Your task to perform on an android device: Do I have any events this weekend? Image 0: 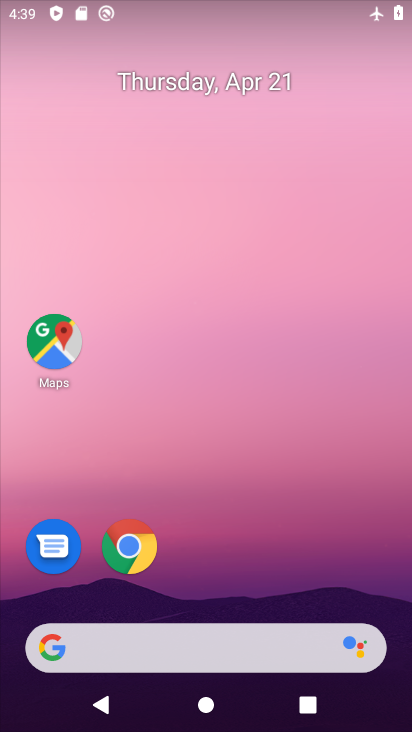
Step 0: drag from (202, 575) to (260, 80)
Your task to perform on an android device: Do I have any events this weekend? Image 1: 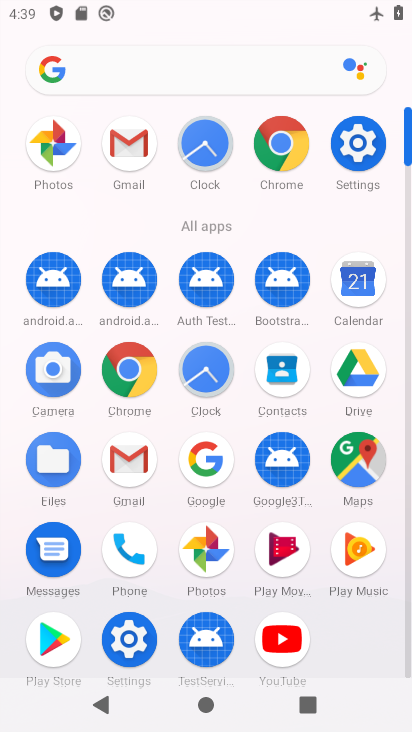
Step 1: click (355, 281)
Your task to perform on an android device: Do I have any events this weekend? Image 2: 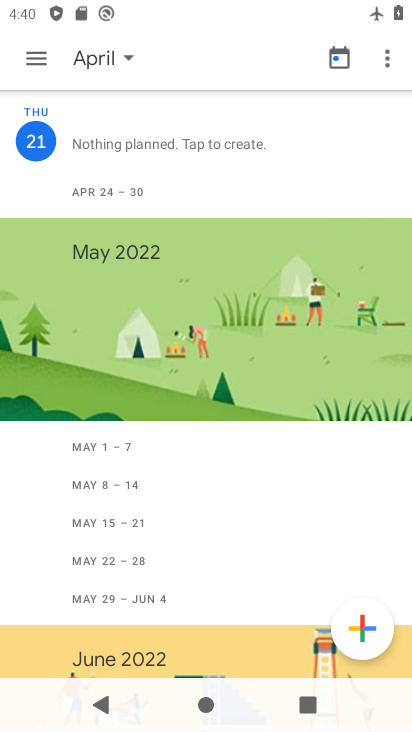
Step 2: click (34, 56)
Your task to perform on an android device: Do I have any events this weekend? Image 3: 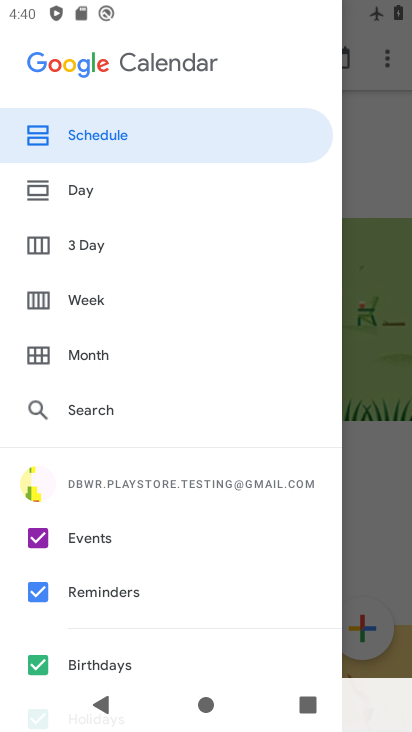
Step 3: drag from (134, 516) to (189, 193)
Your task to perform on an android device: Do I have any events this weekend? Image 4: 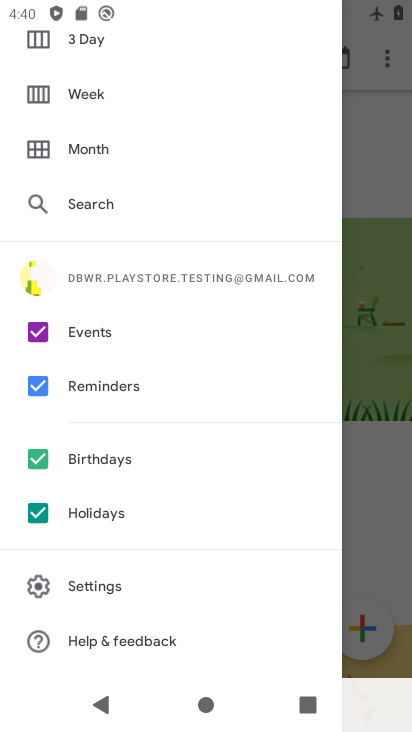
Step 4: click (44, 384)
Your task to perform on an android device: Do I have any events this weekend? Image 5: 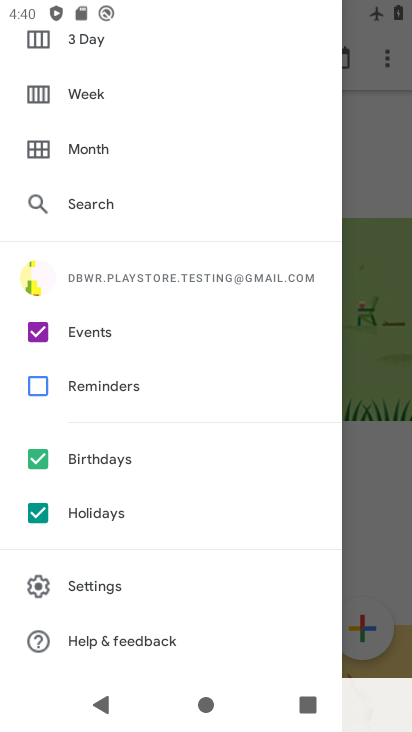
Step 5: click (38, 513)
Your task to perform on an android device: Do I have any events this weekend? Image 6: 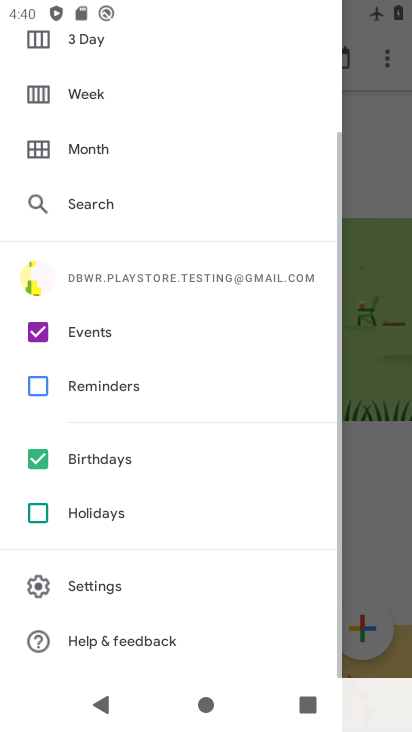
Step 6: click (39, 449)
Your task to perform on an android device: Do I have any events this weekend? Image 7: 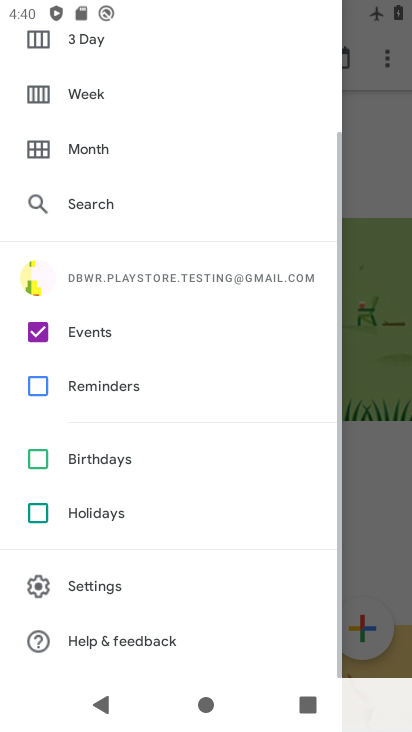
Step 7: drag from (263, 246) to (250, 610)
Your task to perform on an android device: Do I have any events this weekend? Image 8: 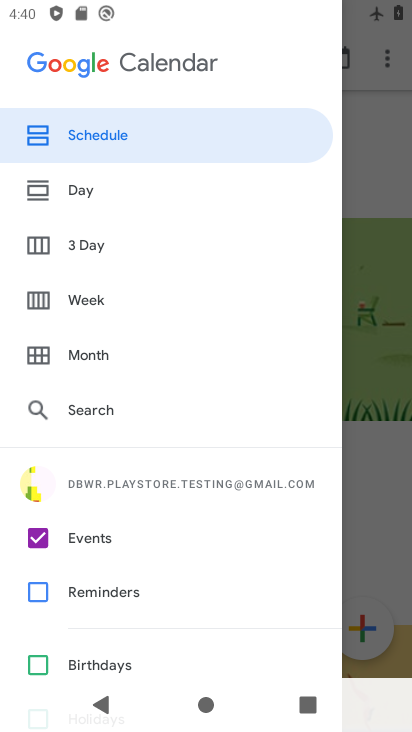
Step 8: drag from (376, 318) to (339, 307)
Your task to perform on an android device: Do I have any events this weekend? Image 9: 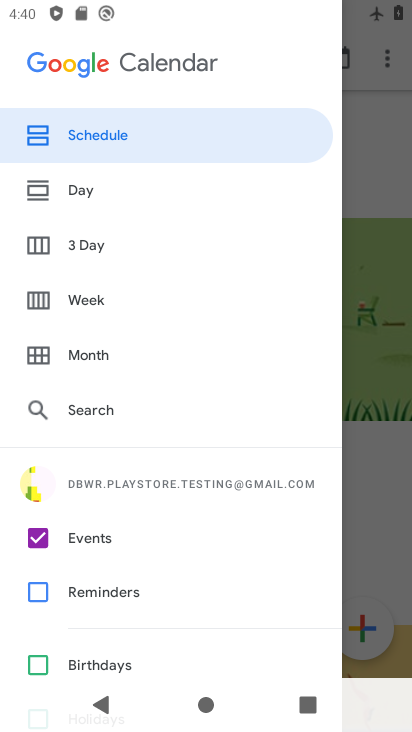
Step 9: click (376, 162)
Your task to perform on an android device: Do I have any events this weekend? Image 10: 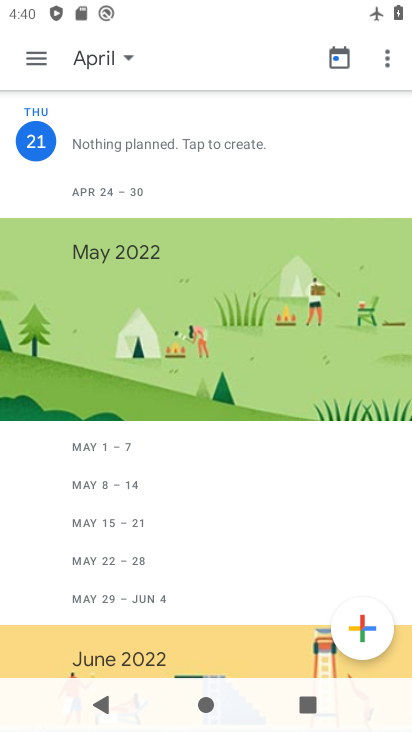
Step 10: click (114, 61)
Your task to perform on an android device: Do I have any events this weekend? Image 11: 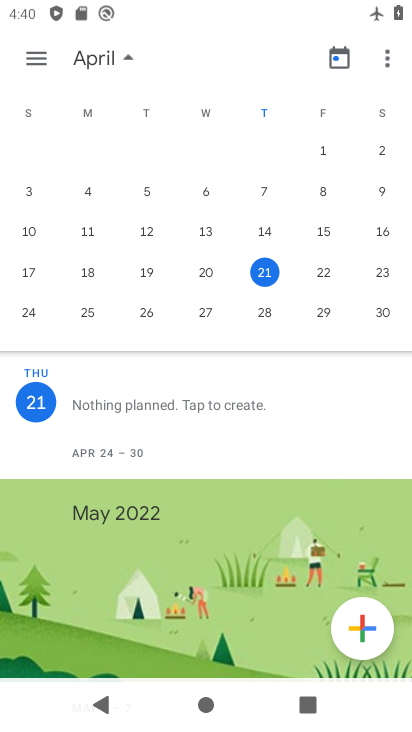
Step 11: click (330, 266)
Your task to perform on an android device: Do I have any events this weekend? Image 12: 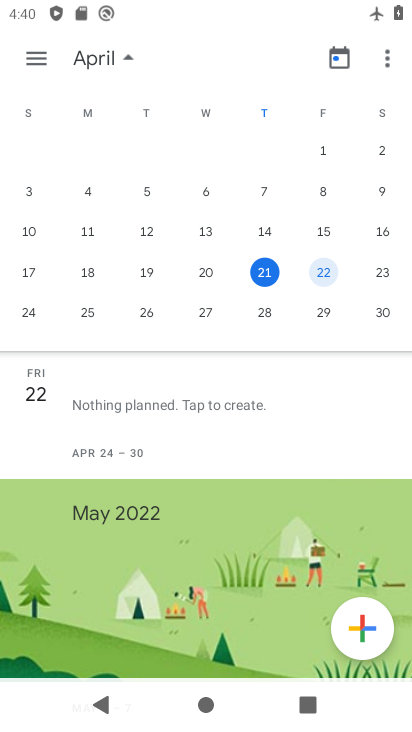
Step 12: click (330, 266)
Your task to perform on an android device: Do I have any events this weekend? Image 13: 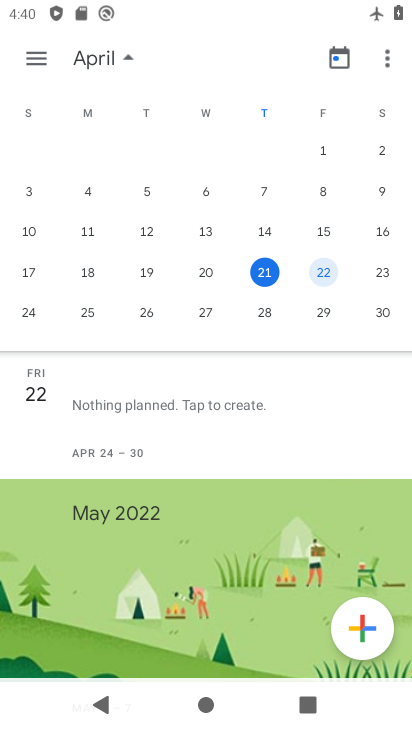
Step 13: drag from (280, 420) to (263, 32)
Your task to perform on an android device: Do I have any events this weekend? Image 14: 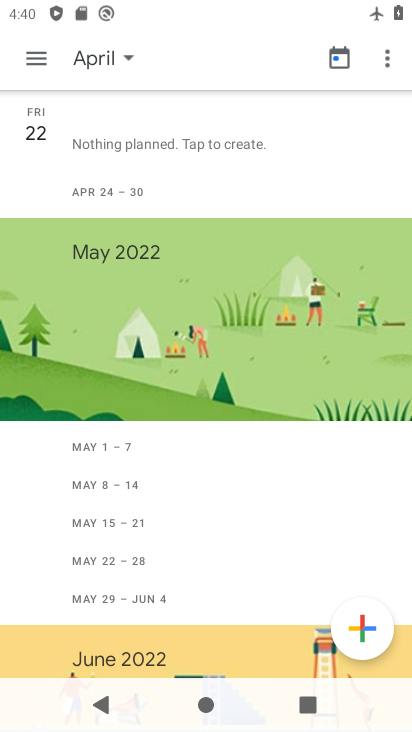
Step 14: click (252, 549)
Your task to perform on an android device: Do I have any events this weekend? Image 15: 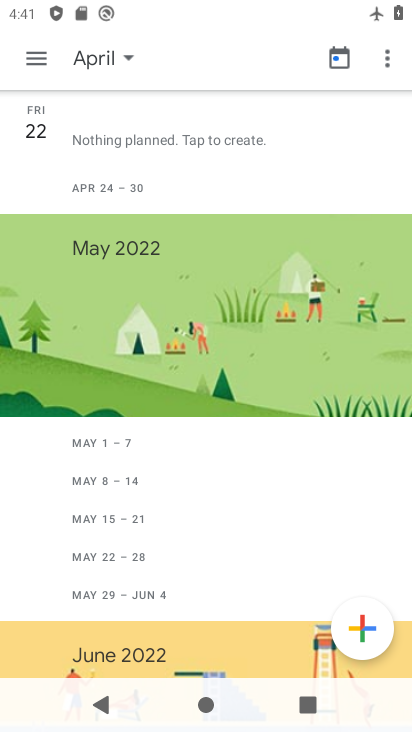
Step 15: click (105, 58)
Your task to perform on an android device: Do I have any events this weekend? Image 16: 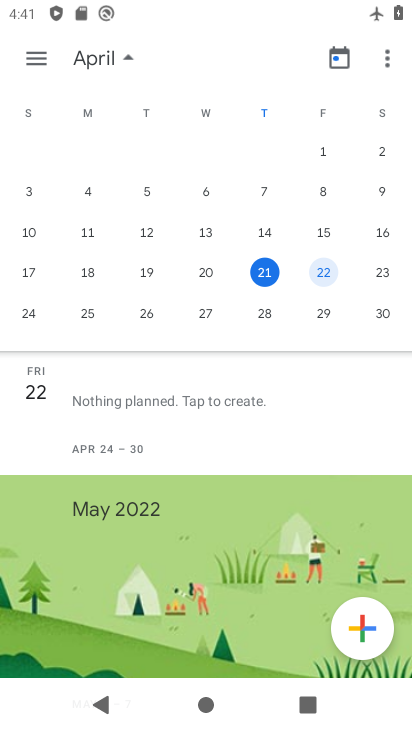
Step 16: click (321, 270)
Your task to perform on an android device: Do I have any events this weekend? Image 17: 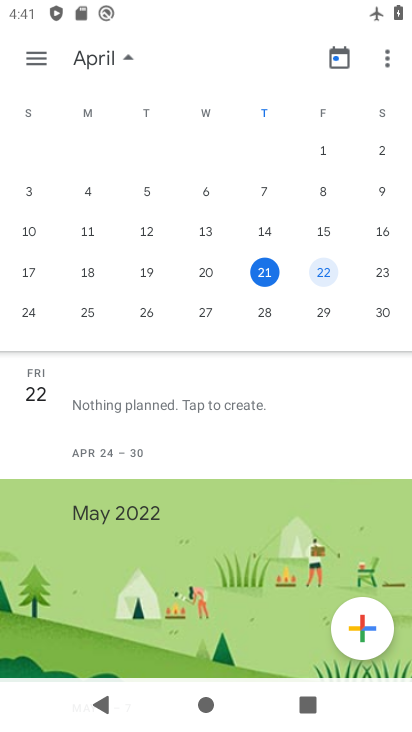
Step 17: click (37, 57)
Your task to perform on an android device: Do I have any events this weekend? Image 18: 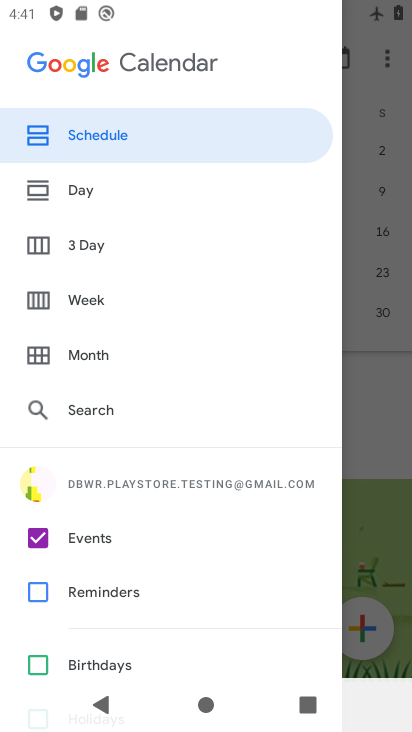
Step 18: click (91, 248)
Your task to perform on an android device: Do I have any events this weekend? Image 19: 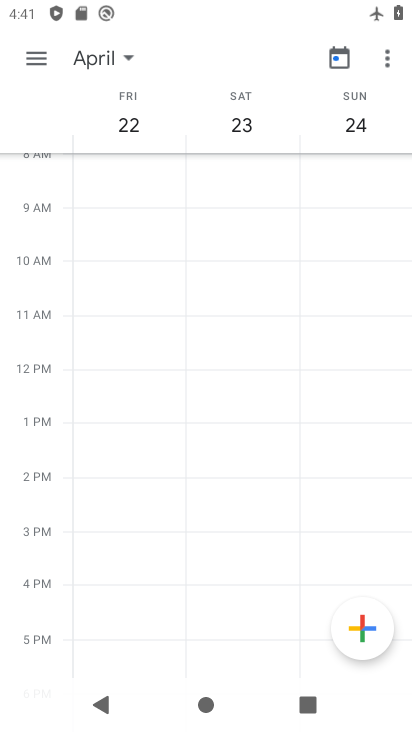
Step 19: task complete